Your task to perform on an android device: Check the news Image 0: 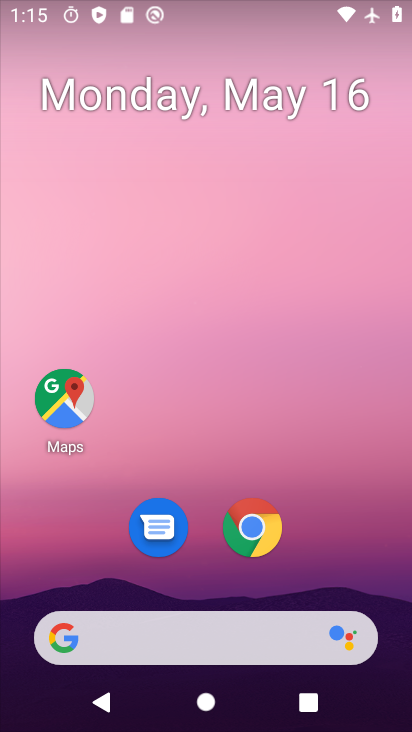
Step 0: click (63, 643)
Your task to perform on an android device: Check the news Image 1: 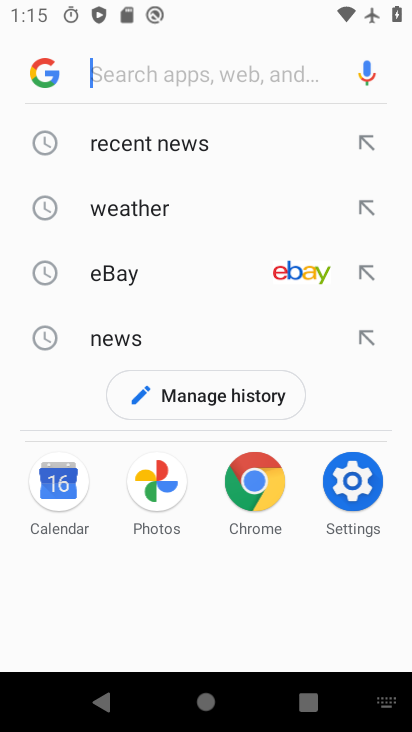
Step 1: click (159, 147)
Your task to perform on an android device: Check the news Image 2: 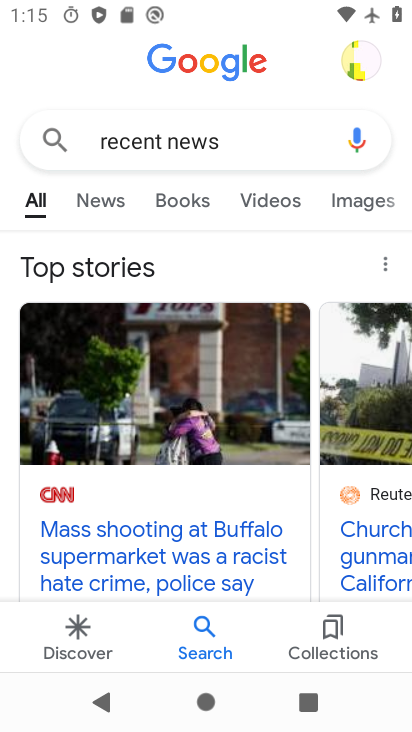
Step 2: click (107, 204)
Your task to perform on an android device: Check the news Image 3: 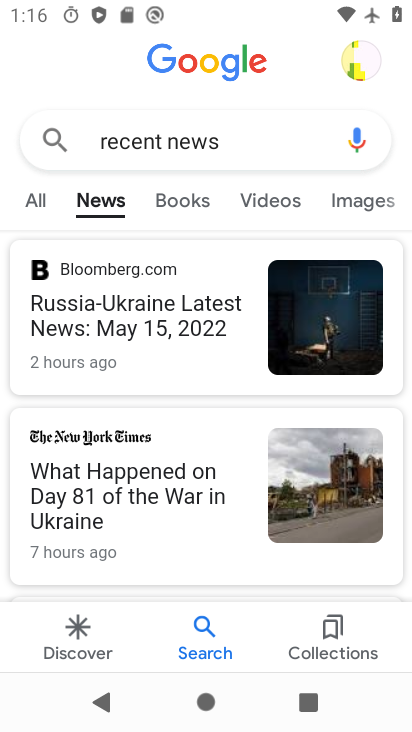
Step 3: task complete